Your task to perform on an android device: see tabs open on other devices in the chrome app Image 0: 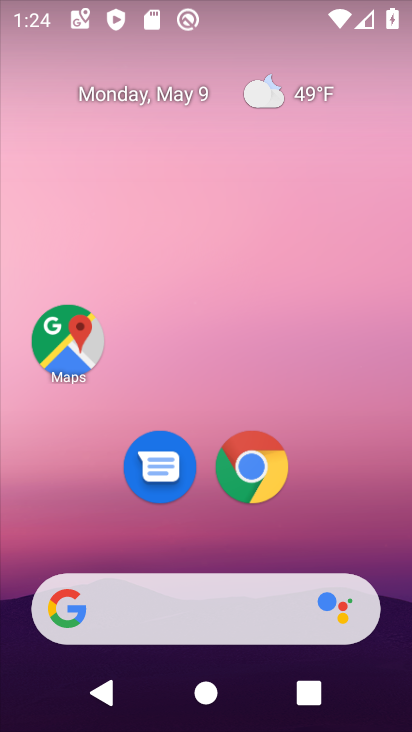
Step 0: click (325, 140)
Your task to perform on an android device: see tabs open on other devices in the chrome app Image 1: 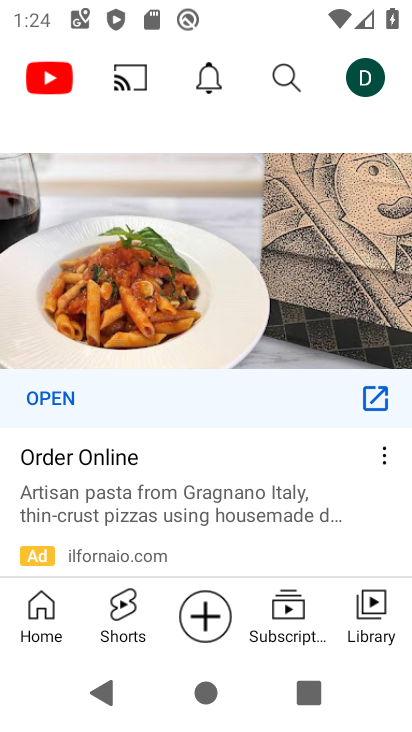
Step 1: press home button
Your task to perform on an android device: see tabs open on other devices in the chrome app Image 2: 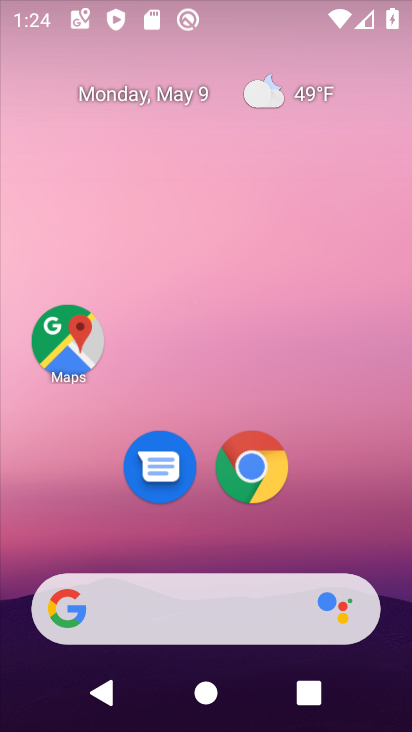
Step 2: drag from (394, 545) to (341, 64)
Your task to perform on an android device: see tabs open on other devices in the chrome app Image 3: 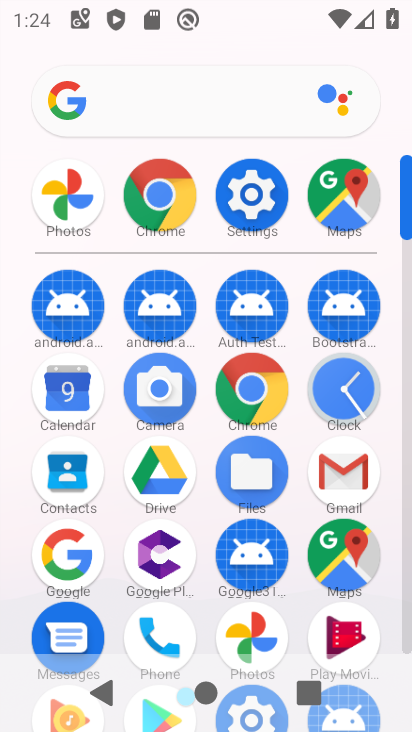
Step 3: click (266, 384)
Your task to perform on an android device: see tabs open on other devices in the chrome app Image 4: 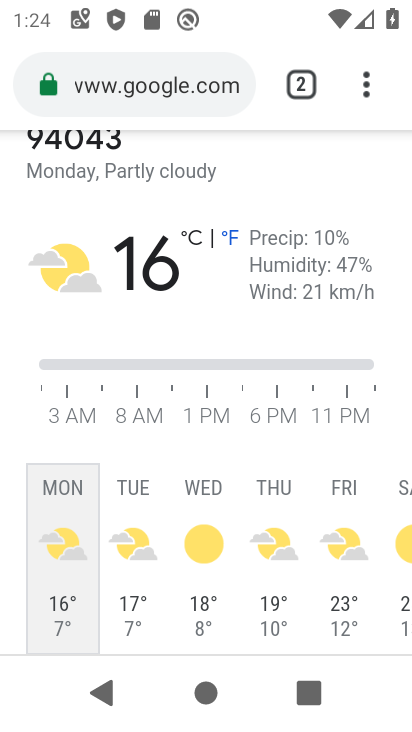
Step 4: click (284, 95)
Your task to perform on an android device: see tabs open on other devices in the chrome app Image 5: 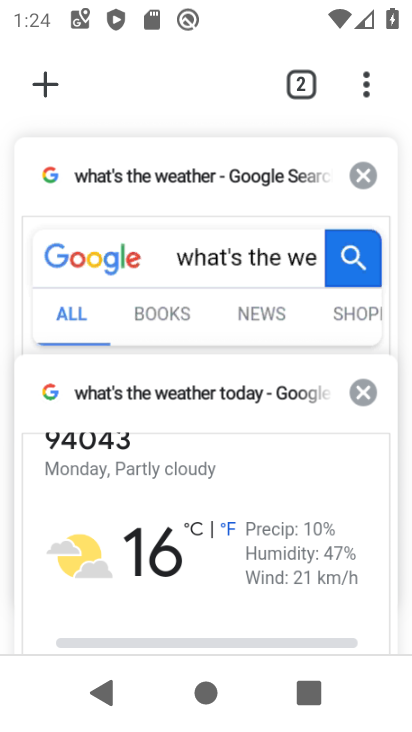
Step 5: click (284, 95)
Your task to perform on an android device: see tabs open on other devices in the chrome app Image 6: 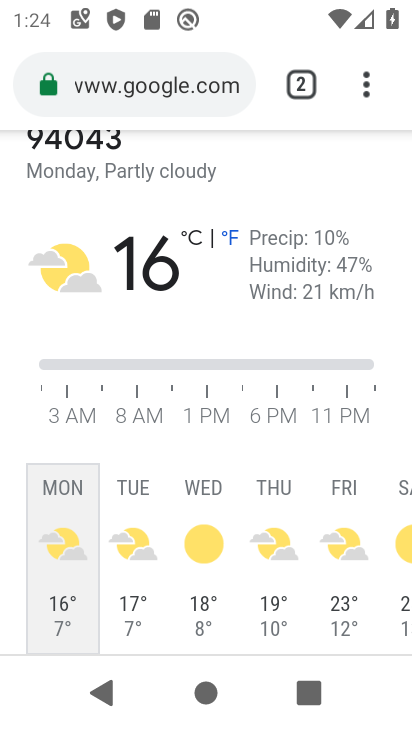
Step 6: click (292, 88)
Your task to perform on an android device: see tabs open on other devices in the chrome app Image 7: 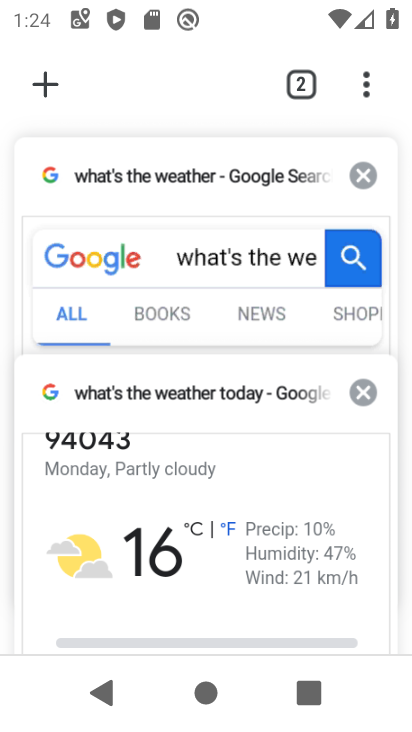
Step 7: click (37, 82)
Your task to perform on an android device: see tabs open on other devices in the chrome app Image 8: 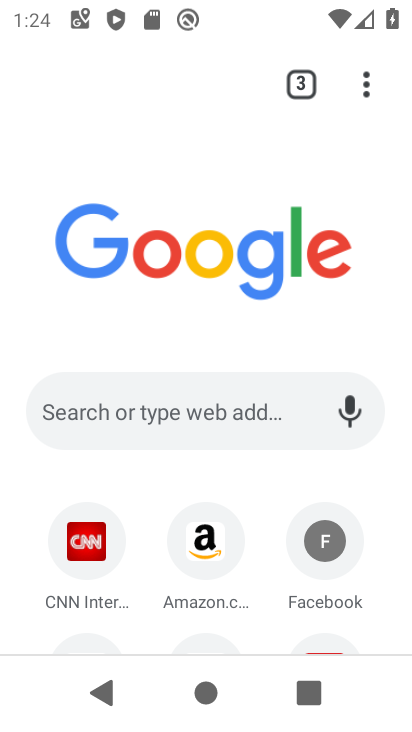
Step 8: drag from (299, 89) to (309, 124)
Your task to perform on an android device: see tabs open on other devices in the chrome app Image 9: 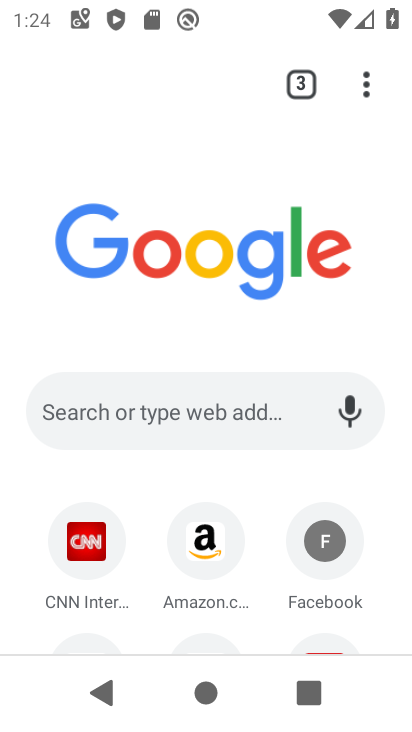
Step 9: click (292, 93)
Your task to perform on an android device: see tabs open on other devices in the chrome app Image 10: 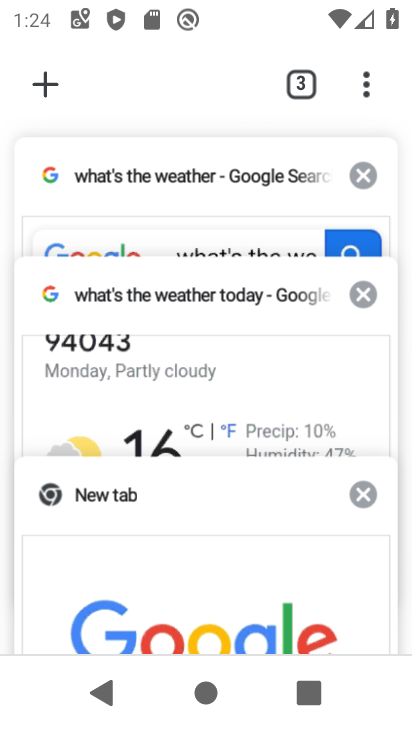
Step 10: task complete